Your task to perform on an android device: turn off location Image 0: 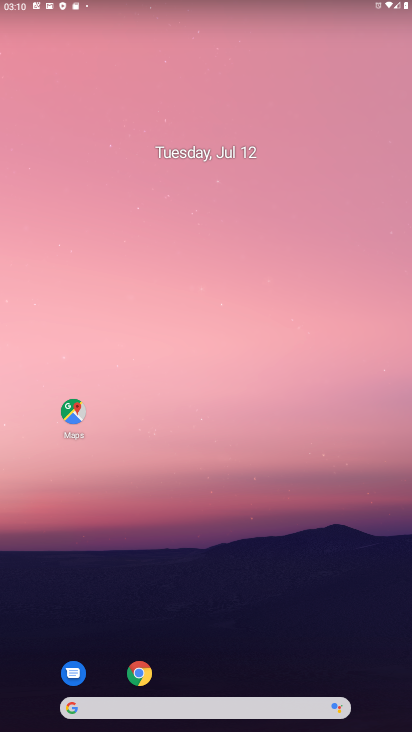
Step 0: press home button
Your task to perform on an android device: turn off location Image 1: 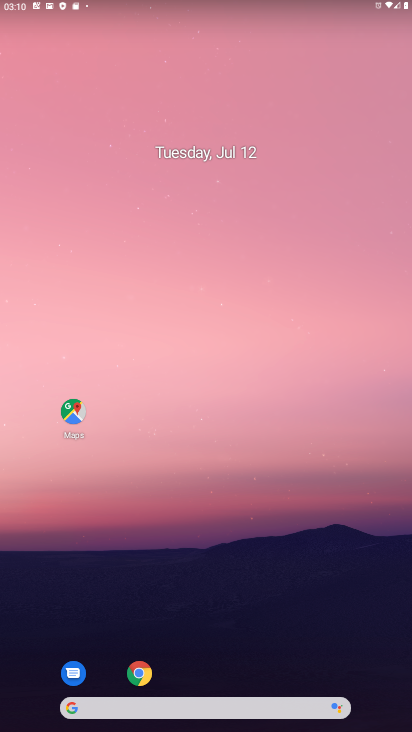
Step 1: drag from (244, 631) to (244, 110)
Your task to perform on an android device: turn off location Image 2: 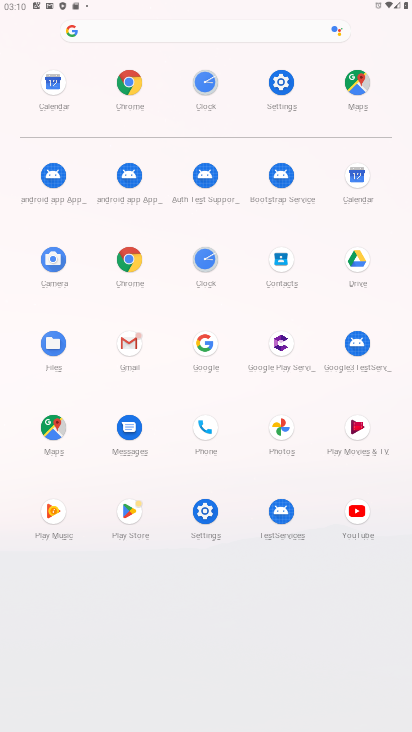
Step 2: click (282, 83)
Your task to perform on an android device: turn off location Image 3: 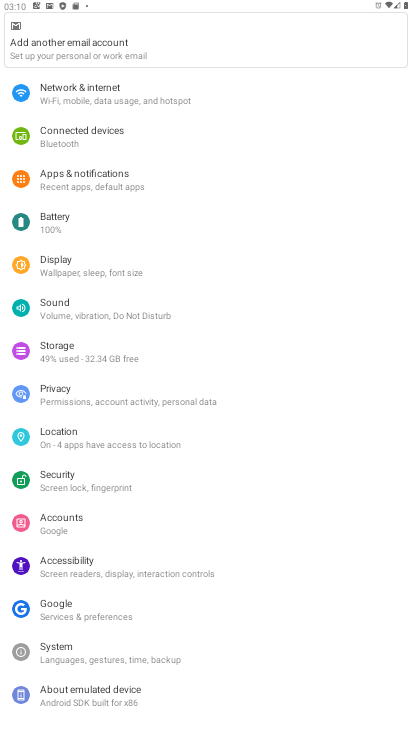
Step 3: click (61, 437)
Your task to perform on an android device: turn off location Image 4: 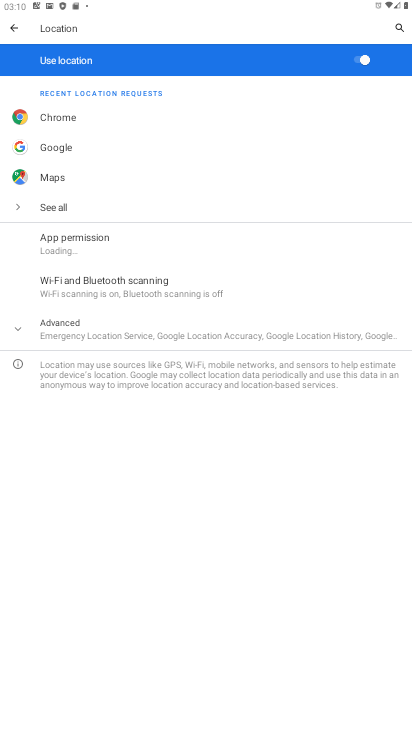
Step 4: click (357, 57)
Your task to perform on an android device: turn off location Image 5: 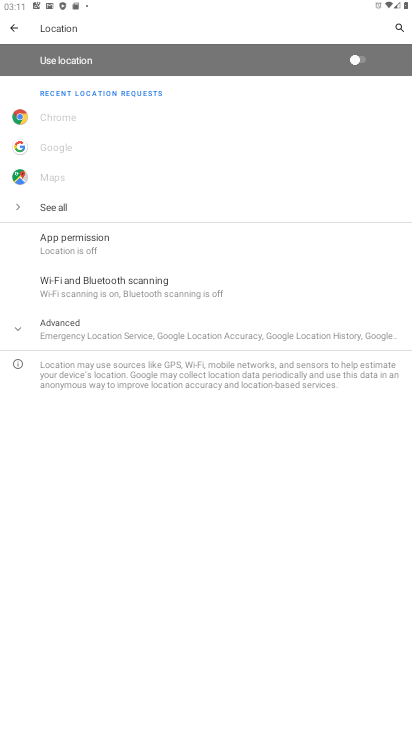
Step 5: task complete